Your task to perform on an android device: turn off improve location accuracy Image 0: 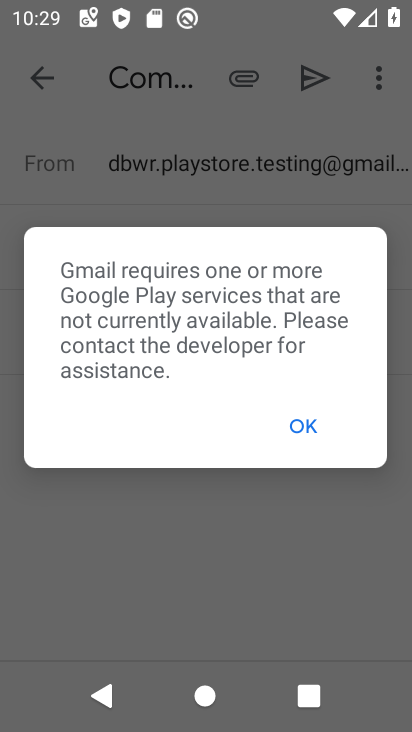
Step 0: press home button
Your task to perform on an android device: turn off improve location accuracy Image 1: 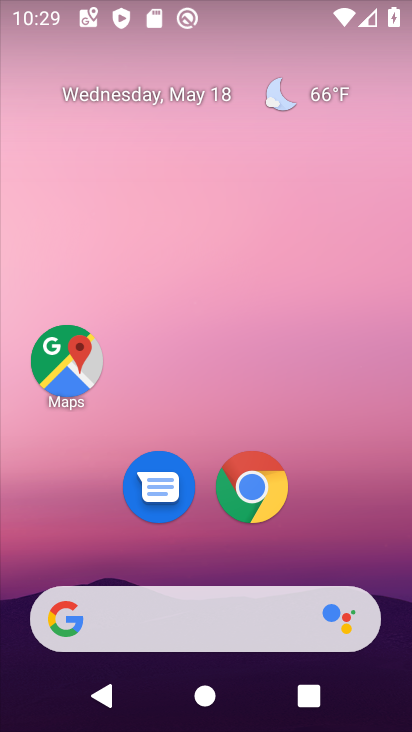
Step 1: drag from (182, 574) to (185, 3)
Your task to perform on an android device: turn off improve location accuracy Image 2: 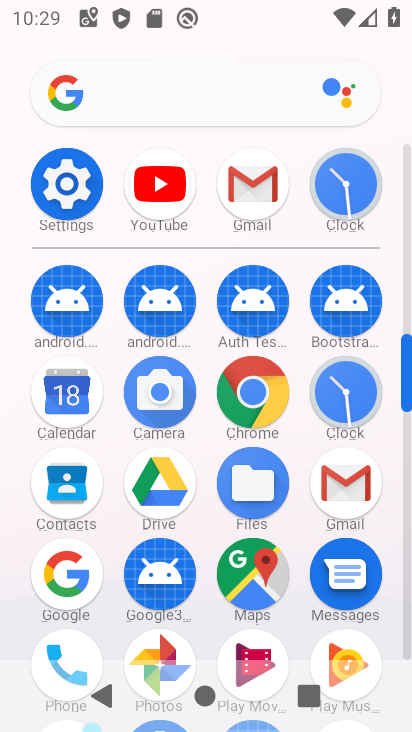
Step 2: click (57, 195)
Your task to perform on an android device: turn off improve location accuracy Image 3: 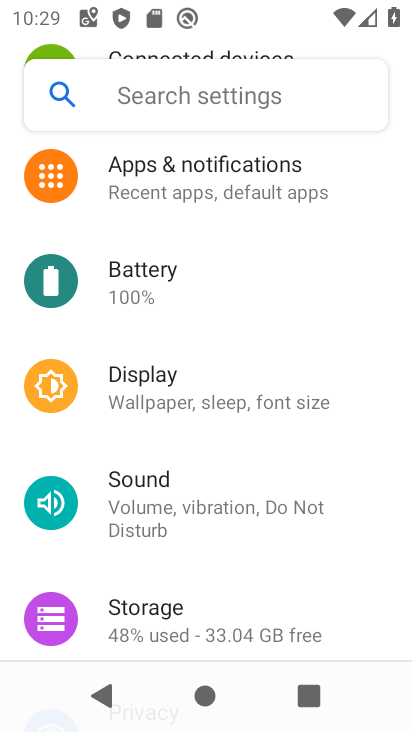
Step 3: drag from (229, 288) to (241, 592)
Your task to perform on an android device: turn off improve location accuracy Image 4: 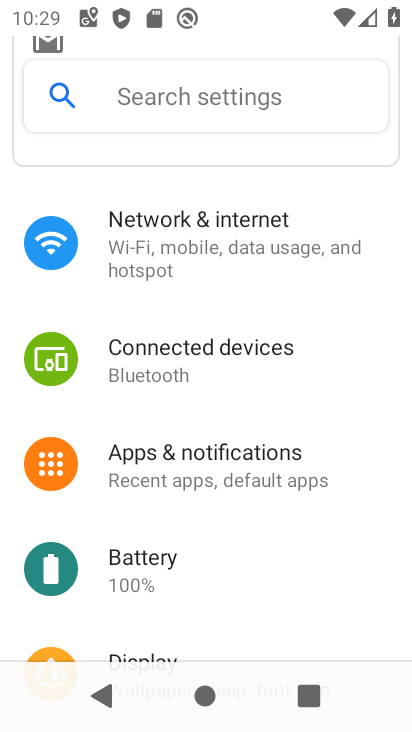
Step 4: drag from (248, 532) to (206, 218)
Your task to perform on an android device: turn off improve location accuracy Image 5: 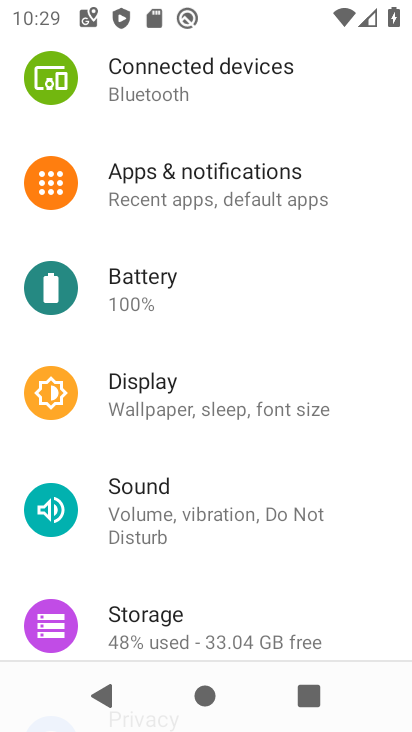
Step 5: drag from (210, 509) to (182, 107)
Your task to perform on an android device: turn off improve location accuracy Image 6: 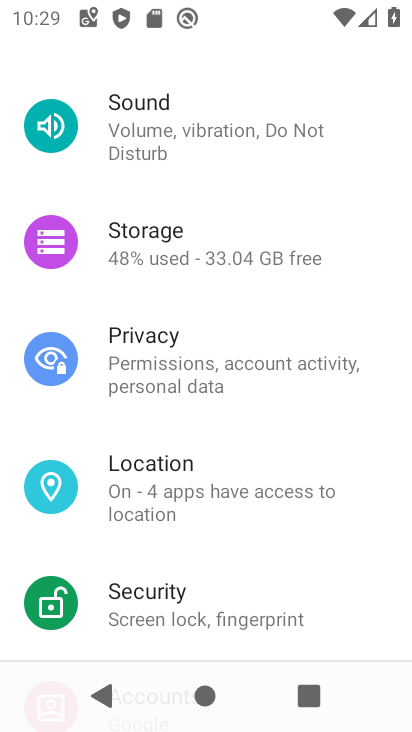
Step 6: click (177, 481)
Your task to perform on an android device: turn off improve location accuracy Image 7: 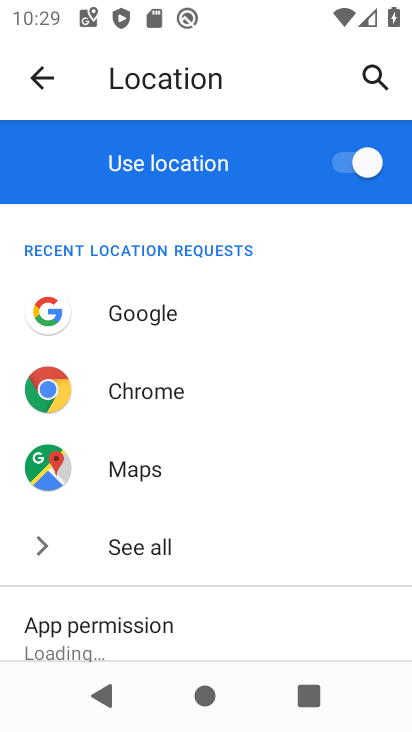
Step 7: drag from (211, 551) to (166, 47)
Your task to perform on an android device: turn off improve location accuracy Image 8: 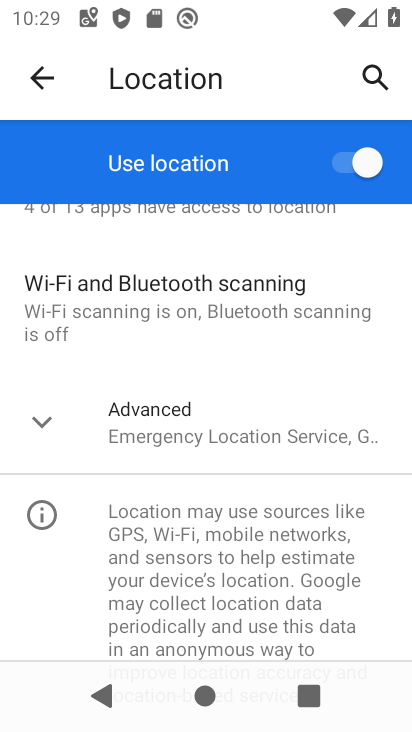
Step 8: click (189, 410)
Your task to perform on an android device: turn off improve location accuracy Image 9: 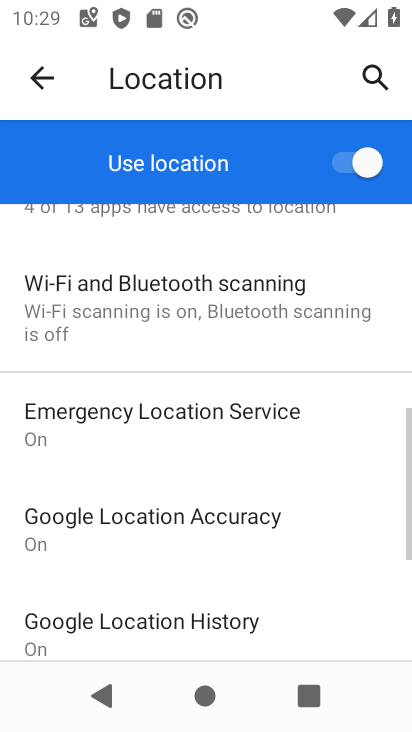
Step 9: click (212, 514)
Your task to perform on an android device: turn off improve location accuracy Image 10: 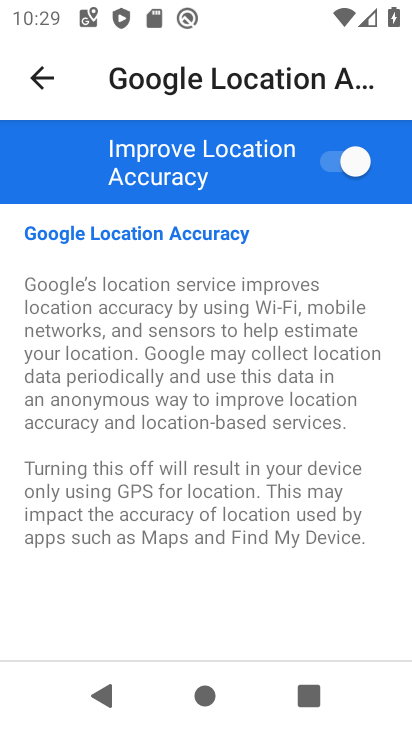
Step 10: click (356, 166)
Your task to perform on an android device: turn off improve location accuracy Image 11: 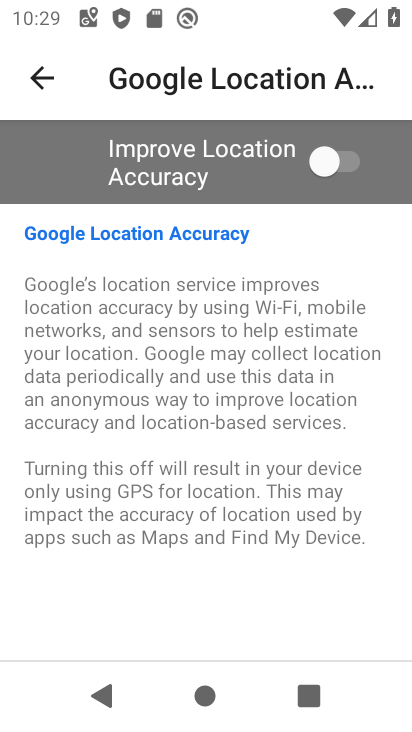
Step 11: task complete